Your task to perform on an android device: toggle sleep mode Image 0: 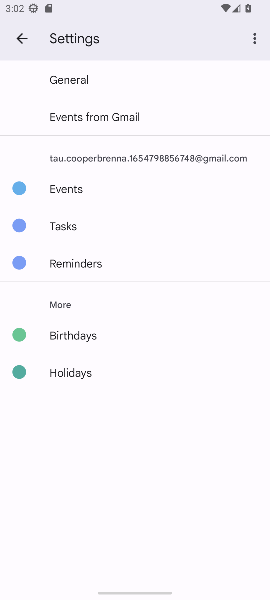
Step 0: drag from (165, 391) to (131, 126)
Your task to perform on an android device: toggle sleep mode Image 1: 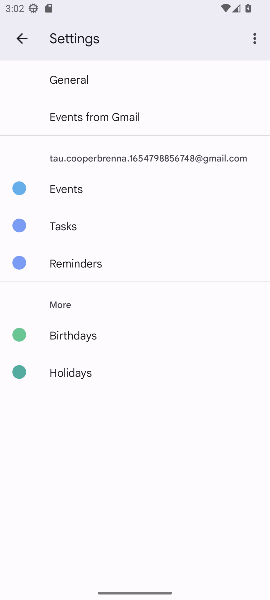
Step 1: click (23, 38)
Your task to perform on an android device: toggle sleep mode Image 2: 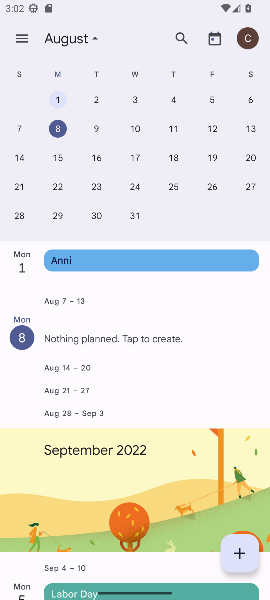
Step 2: press back button
Your task to perform on an android device: toggle sleep mode Image 3: 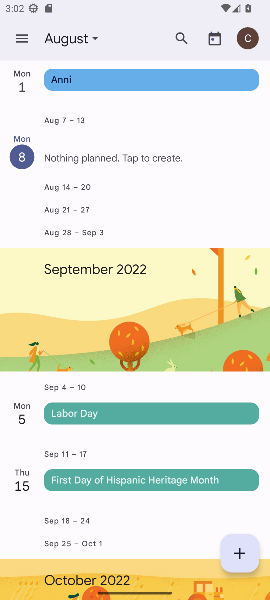
Step 3: press back button
Your task to perform on an android device: toggle sleep mode Image 4: 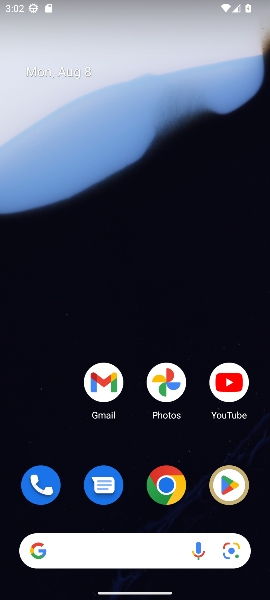
Step 4: drag from (145, 285) to (131, 121)
Your task to perform on an android device: toggle sleep mode Image 5: 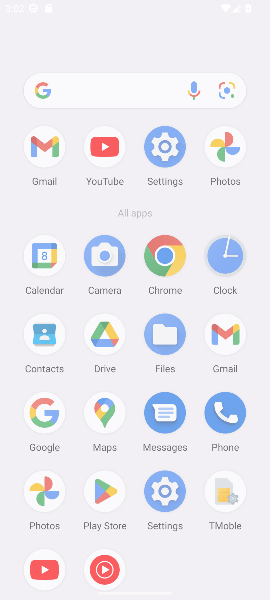
Step 5: drag from (139, 433) to (140, 155)
Your task to perform on an android device: toggle sleep mode Image 6: 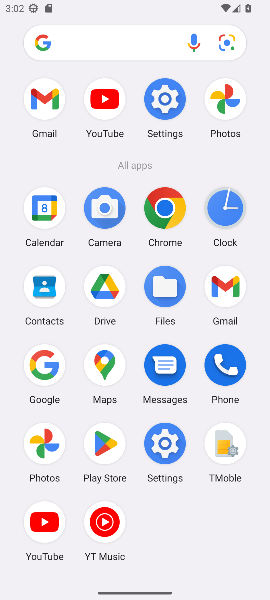
Step 6: click (163, 95)
Your task to perform on an android device: toggle sleep mode Image 7: 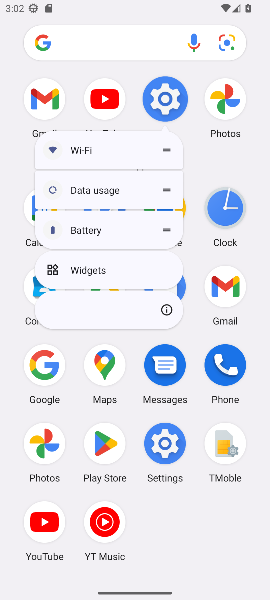
Step 7: click (163, 99)
Your task to perform on an android device: toggle sleep mode Image 8: 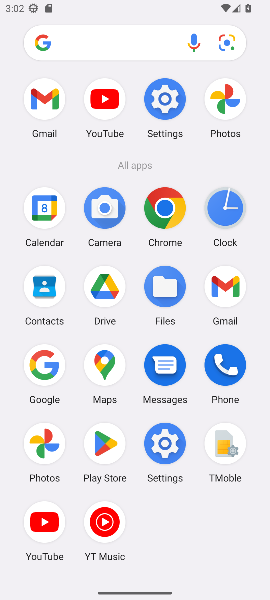
Step 8: click (163, 102)
Your task to perform on an android device: toggle sleep mode Image 9: 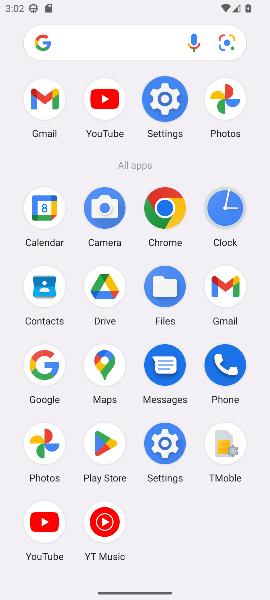
Step 9: click (163, 102)
Your task to perform on an android device: toggle sleep mode Image 10: 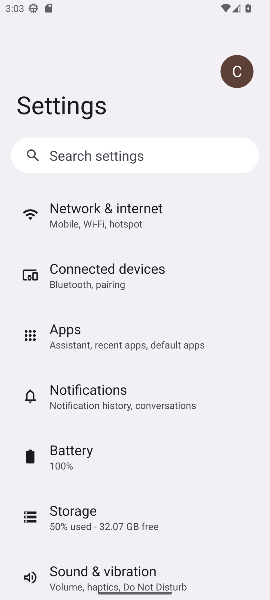
Step 10: drag from (94, 489) to (88, 316)
Your task to perform on an android device: toggle sleep mode Image 11: 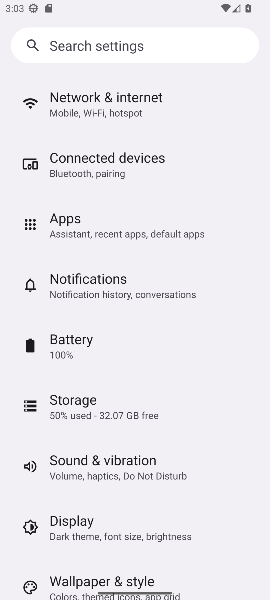
Step 11: click (94, 470)
Your task to perform on an android device: toggle sleep mode Image 12: 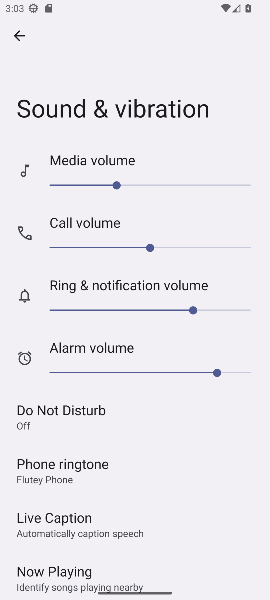
Step 12: task complete